Your task to perform on an android device: turn on the 24-hour format for clock Image 0: 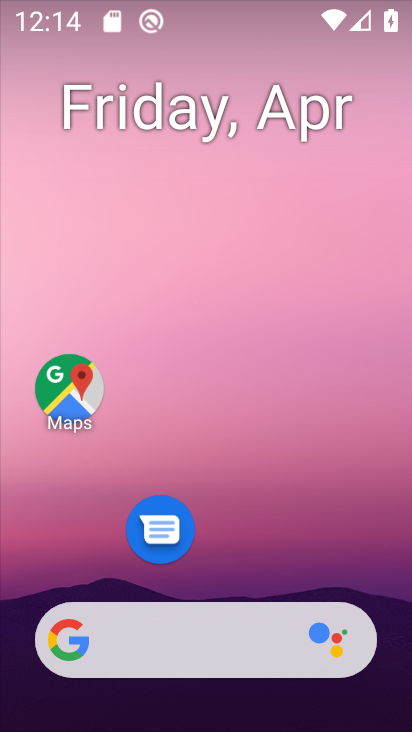
Step 0: click (322, 318)
Your task to perform on an android device: turn on the 24-hour format for clock Image 1: 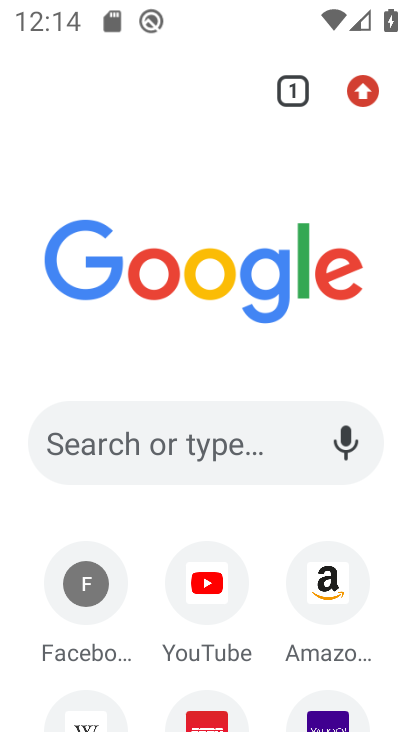
Step 1: press home button
Your task to perform on an android device: turn on the 24-hour format for clock Image 2: 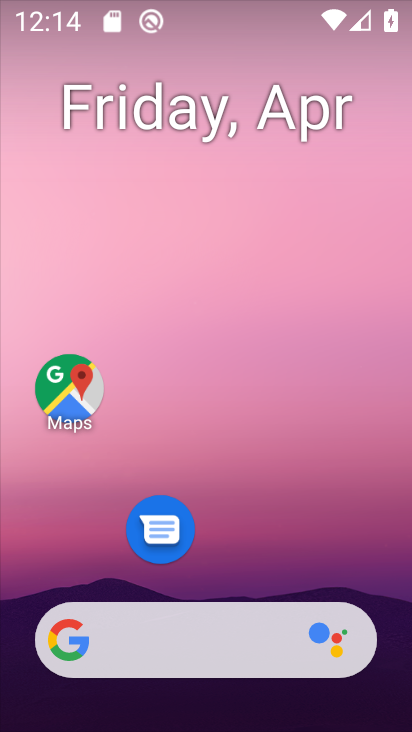
Step 2: drag from (211, 574) to (315, 104)
Your task to perform on an android device: turn on the 24-hour format for clock Image 3: 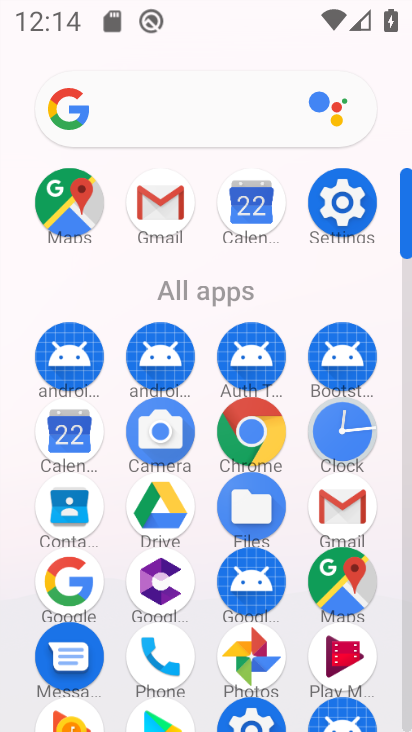
Step 3: drag from (307, 622) to (390, 236)
Your task to perform on an android device: turn on the 24-hour format for clock Image 4: 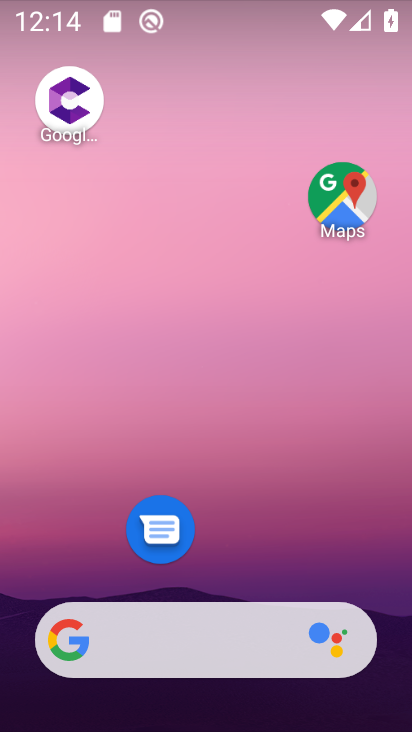
Step 4: drag from (258, 547) to (383, 50)
Your task to perform on an android device: turn on the 24-hour format for clock Image 5: 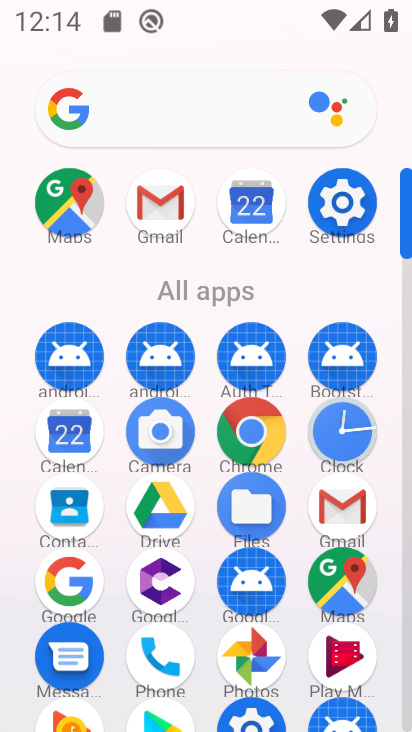
Step 5: click (351, 221)
Your task to perform on an android device: turn on the 24-hour format for clock Image 6: 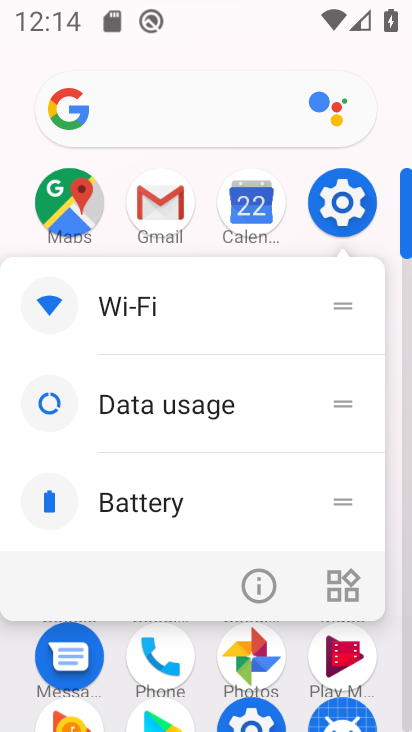
Step 6: click (333, 209)
Your task to perform on an android device: turn on the 24-hour format for clock Image 7: 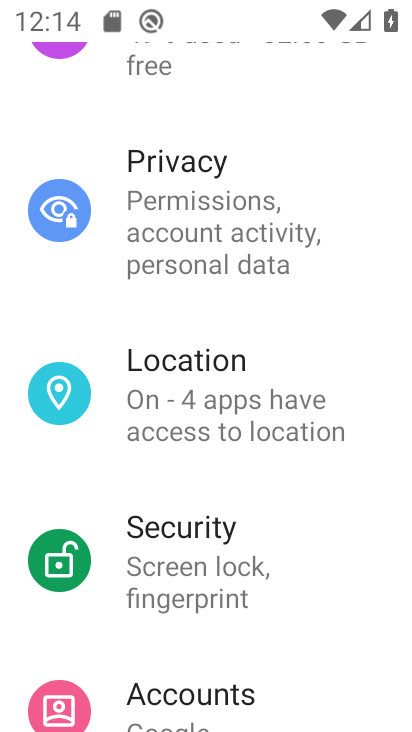
Step 7: drag from (192, 607) to (256, 344)
Your task to perform on an android device: turn on the 24-hour format for clock Image 8: 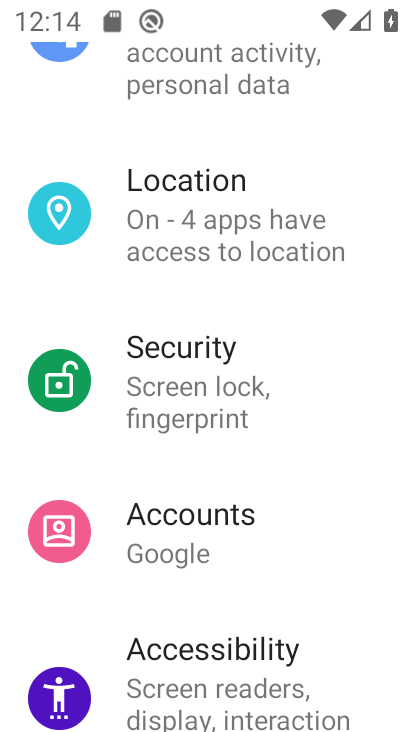
Step 8: drag from (169, 650) to (244, 364)
Your task to perform on an android device: turn on the 24-hour format for clock Image 9: 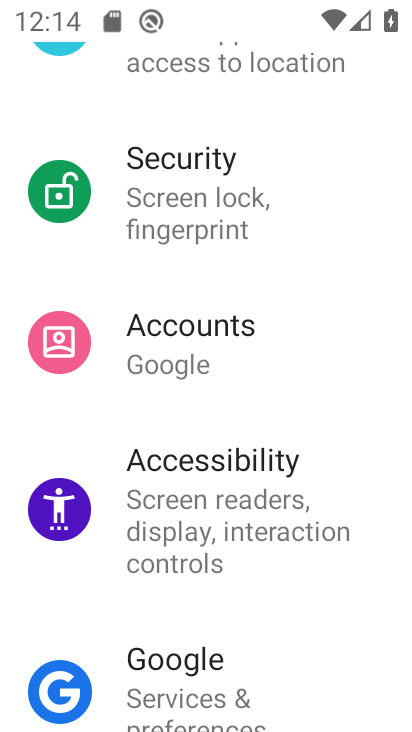
Step 9: drag from (187, 565) to (266, 347)
Your task to perform on an android device: turn on the 24-hour format for clock Image 10: 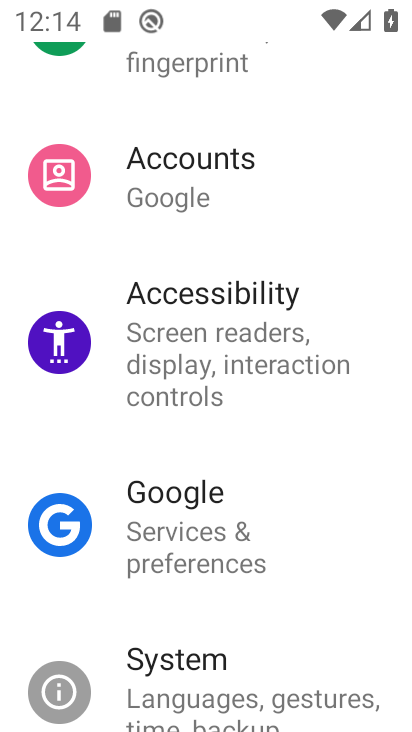
Step 10: drag from (204, 602) to (323, 257)
Your task to perform on an android device: turn on the 24-hour format for clock Image 11: 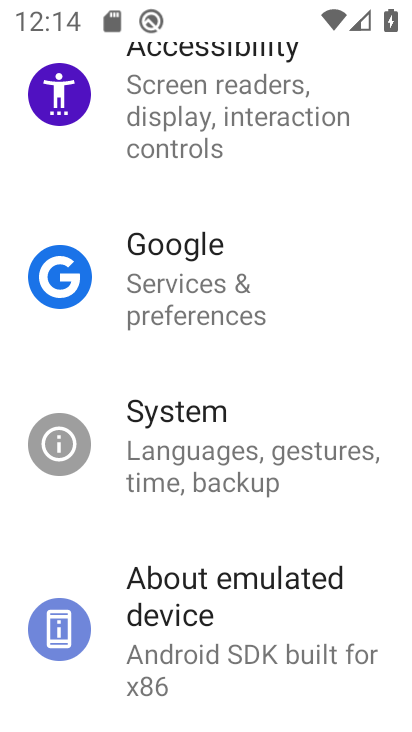
Step 11: click (234, 465)
Your task to perform on an android device: turn on the 24-hour format for clock Image 12: 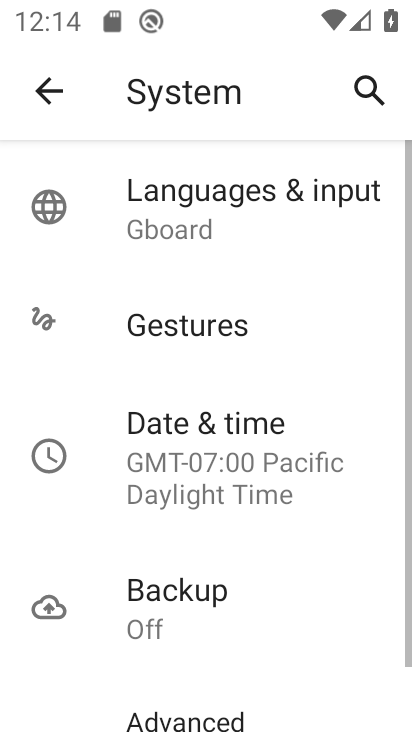
Step 12: click (180, 506)
Your task to perform on an android device: turn on the 24-hour format for clock Image 13: 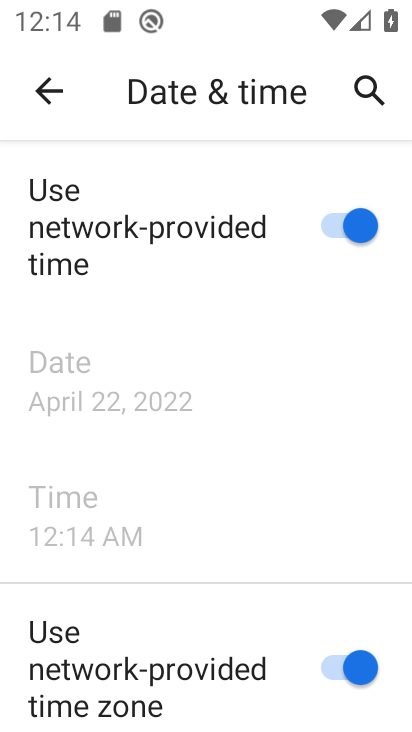
Step 13: drag from (119, 606) to (274, 72)
Your task to perform on an android device: turn on the 24-hour format for clock Image 14: 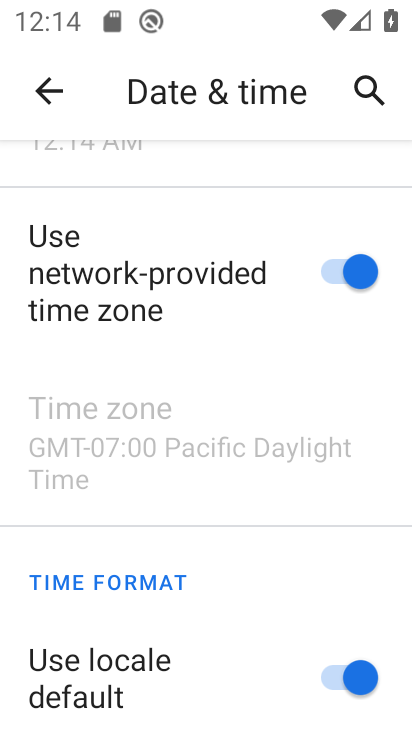
Step 14: drag from (239, 483) to (342, 35)
Your task to perform on an android device: turn on the 24-hour format for clock Image 15: 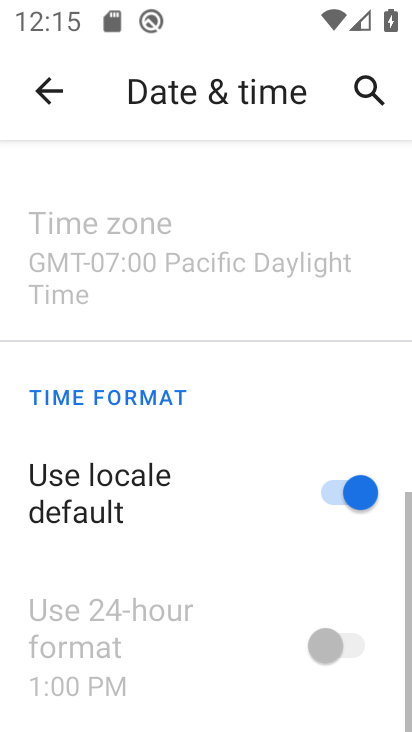
Step 15: click (336, 491)
Your task to perform on an android device: turn on the 24-hour format for clock Image 16: 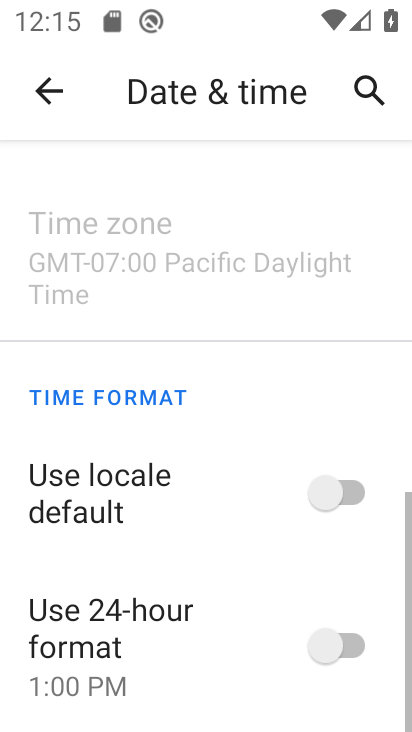
Step 16: click (364, 651)
Your task to perform on an android device: turn on the 24-hour format for clock Image 17: 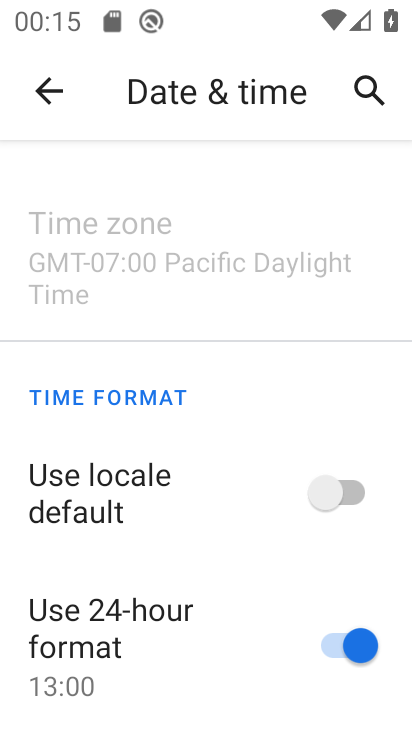
Step 17: task complete